Your task to perform on an android device: Open location settings Image 0: 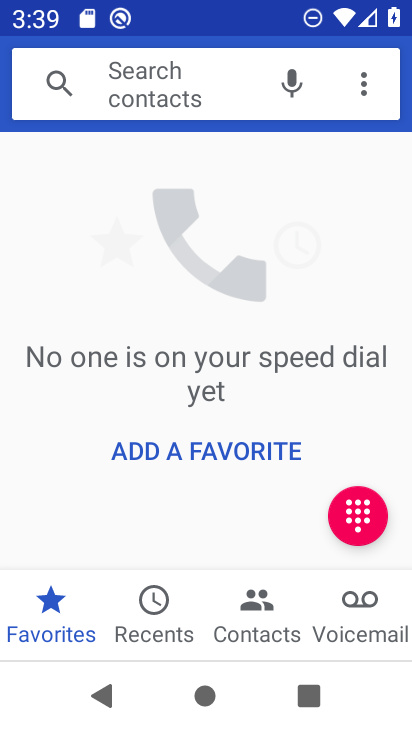
Step 0: press back button
Your task to perform on an android device: Open location settings Image 1: 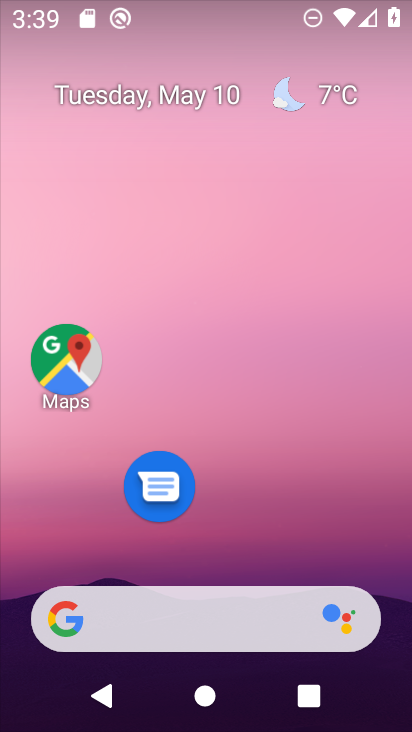
Step 1: drag from (313, 563) to (8, 0)
Your task to perform on an android device: Open location settings Image 2: 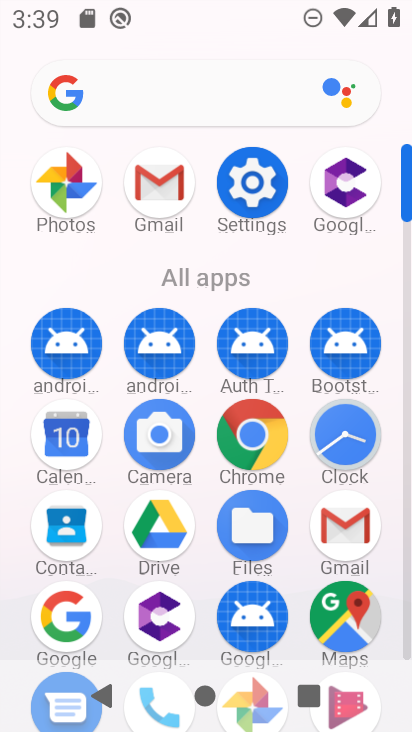
Step 2: click (252, 174)
Your task to perform on an android device: Open location settings Image 3: 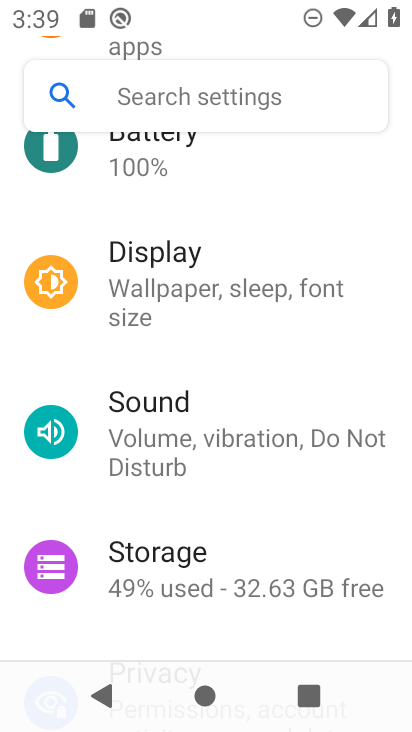
Step 3: drag from (217, 556) to (213, 181)
Your task to perform on an android device: Open location settings Image 4: 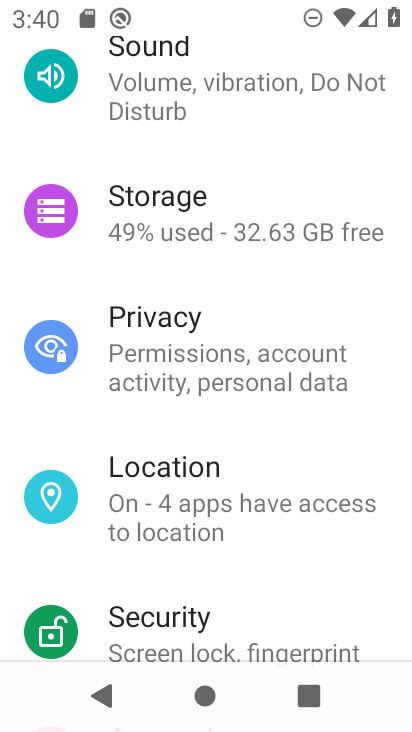
Step 4: click (163, 464)
Your task to perform on an android device: Open location settings Image 5: 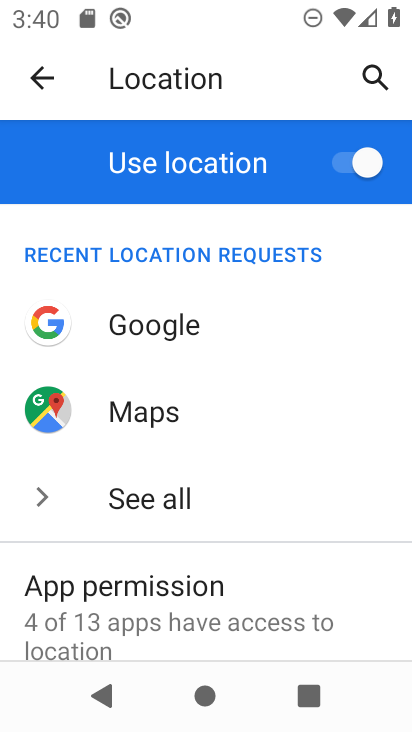
Step 5: drag from (249, 556) to (244, 227)
Your task to perform on an android device: Open location settings Image 6: 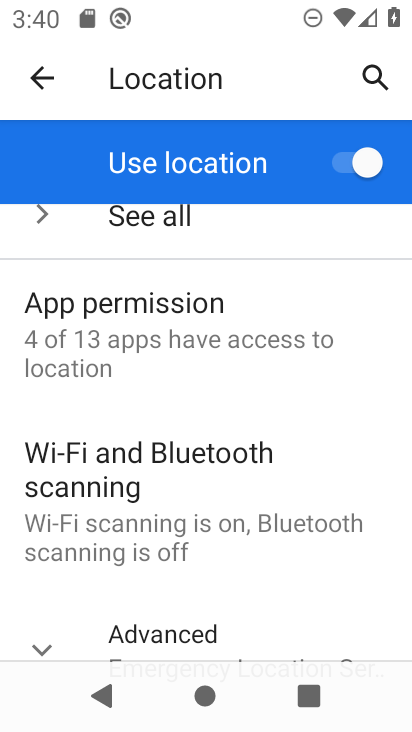
Step 6: drag from (218, 579) to (246, 183)
Your task to perform on an android device: Open location settings Image 7: 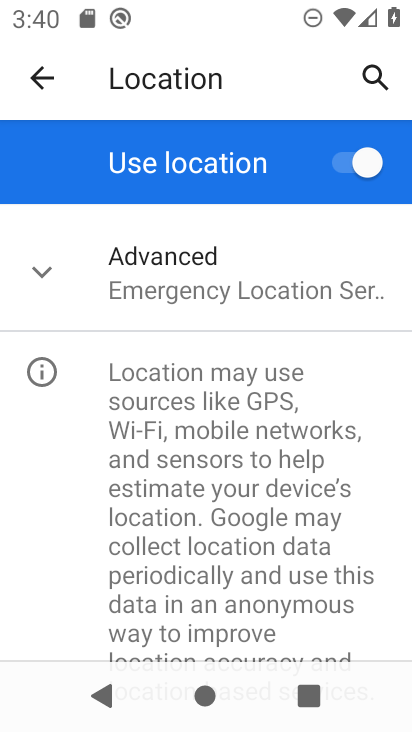
Step 7: click (50, 275)
Your task to perform on an android device: Open location settings Image 8: 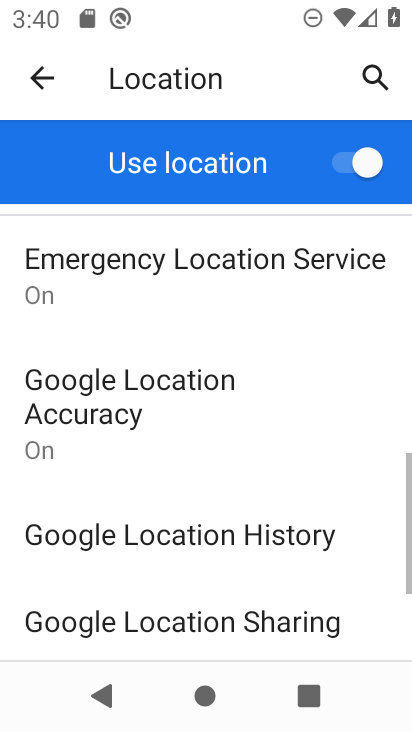
Step 8: task complete